Your task to perform on an android device: delete a single message in the gmail app Image 0: 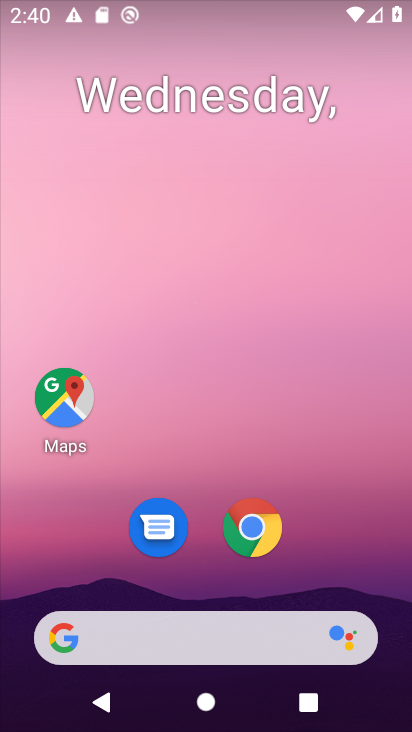
Step 0: drag from (326, 544) to (339, 46)
Your task to perform on an android device: delete a single message in the gmail app Image 1: 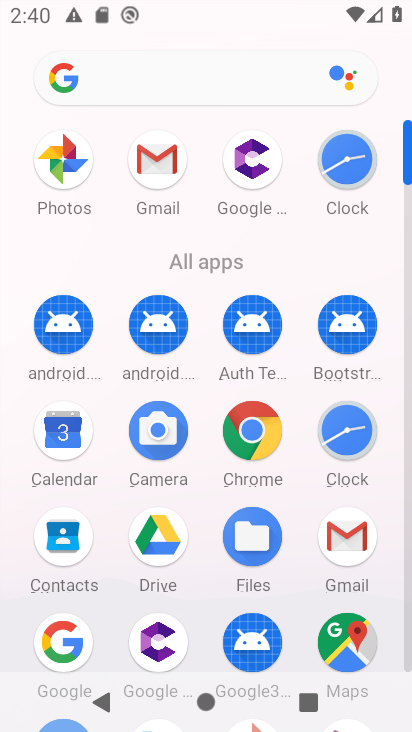
Step 1: click (351, 524)
Your task to perform on an android device: delete a single message in the gmail app Image 2: 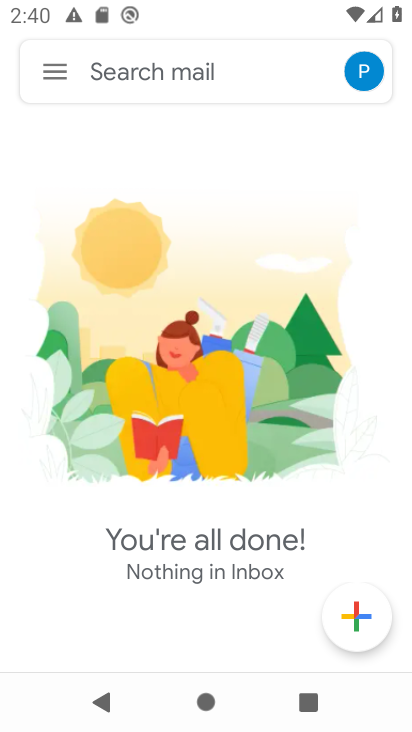
Step 2: click (38, 56)
Your task to perform on an android device: delete a single message in the gmail app Image 3: 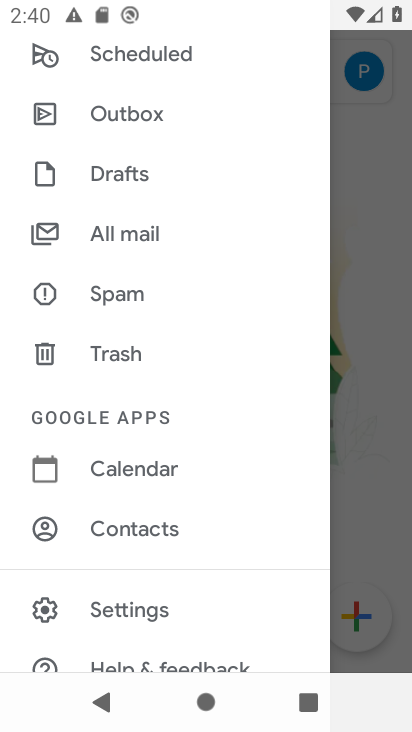
Step 3: click (134, 227)
Your task to perform on an android device: delete a single message in the gmail app Image 4: 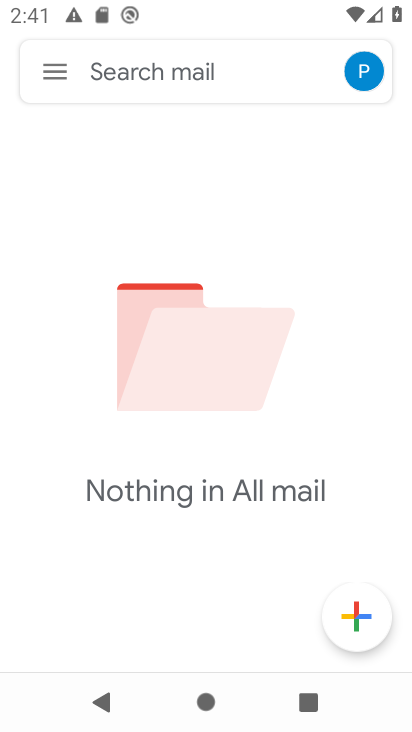
Step 4: task complete